Your task to perform on an android device: Open the web browser Image 0: 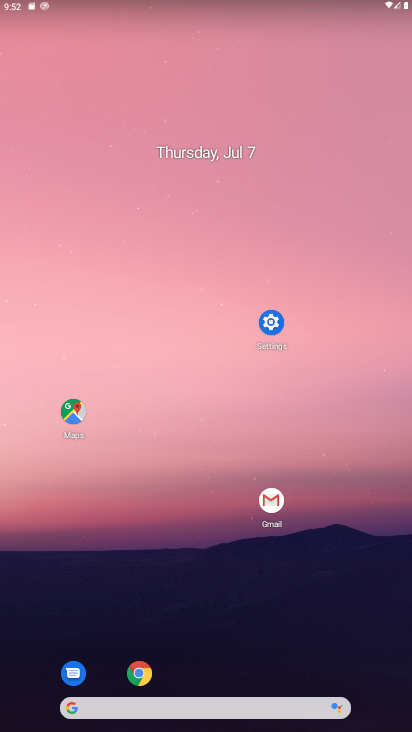
Step 0: drag from (387, 689) to (325, 93)
Your task to perform on an android device: Open the web browser Image 1: 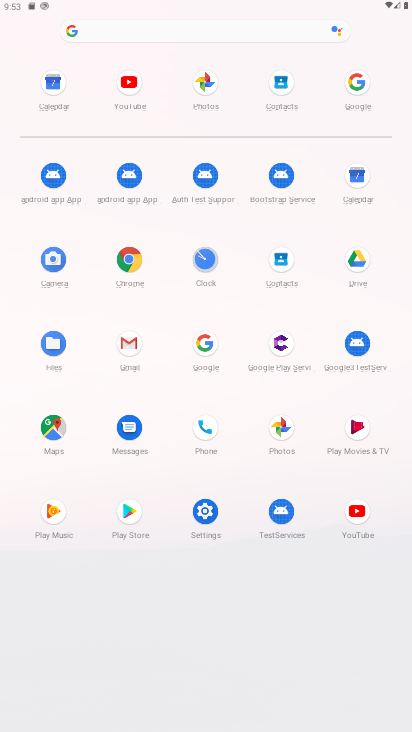
Step 1: drag from (212, 298) to (201, 547)
Your task to perform on an android device: Open the web browser Image 2: 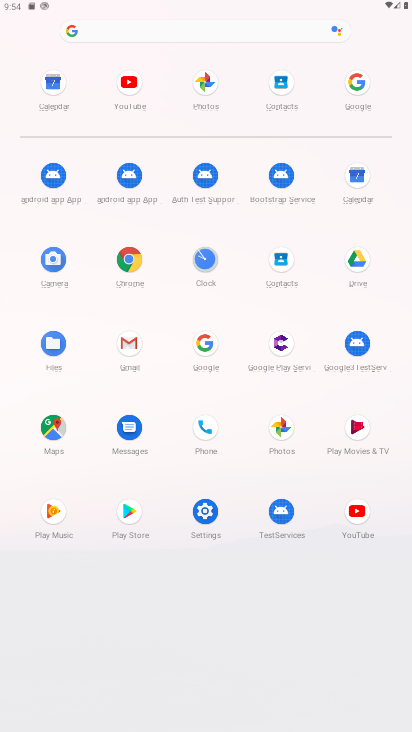
Step 2: click (128, 263)
Your task to perform on an android device: Open the web browser Image 3: 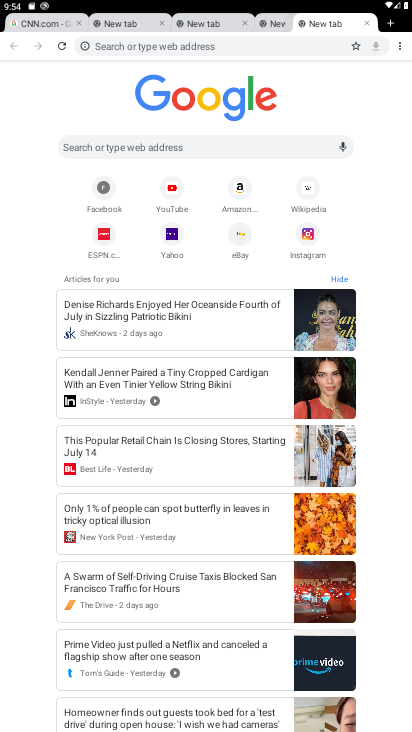
Step 3: task complete